Your task to perform on an android device: turn off airplane mode Image 0: 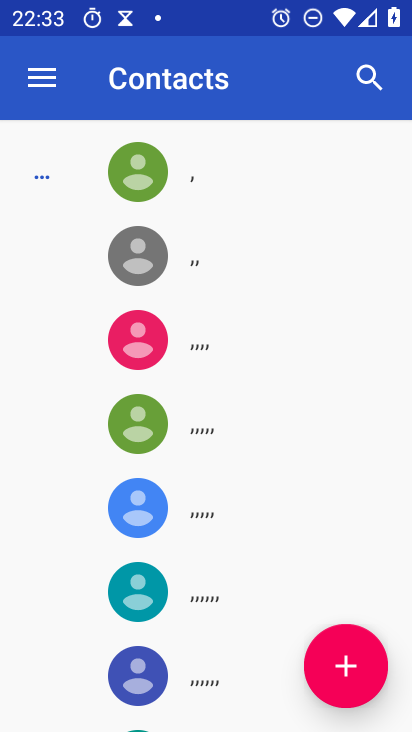
Step 0: press home button
Your task to perform on an android device: turn off airplane mode Image 1: 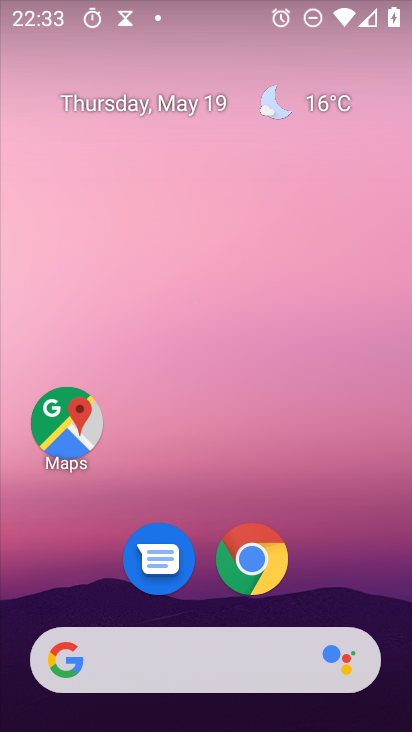
Step 1: drag from (249, 724) to (245, 162)
Your task to perform on an android device: turn off airplane mode Image 2: 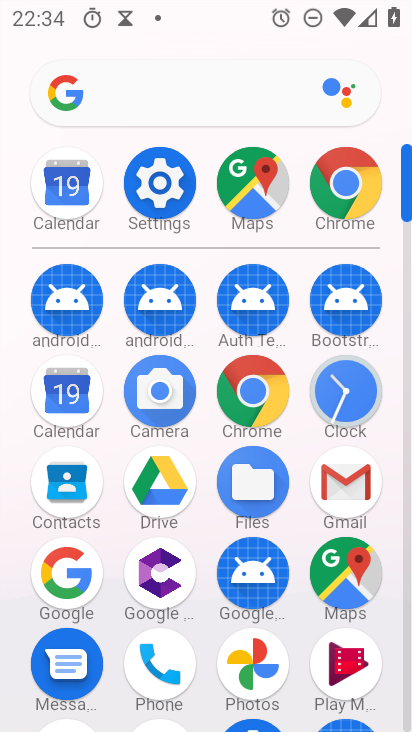
Step 2: click (147, 188)
Your task to perform on an android device: turn off airplane mode Image 3: 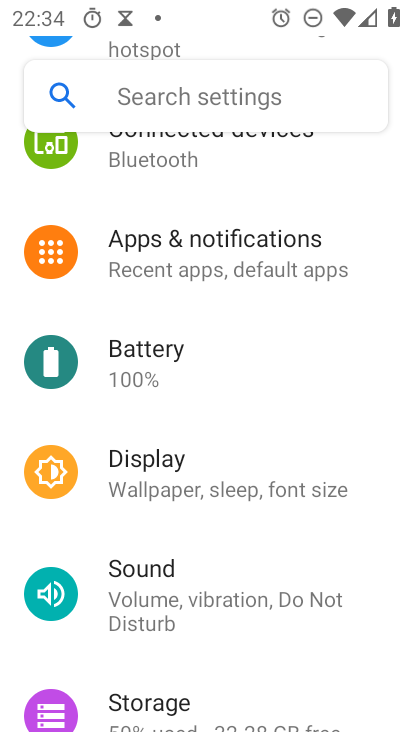
Step 3: drag from (223, 197) to (199, 520)
Your task to perform on an android device: turn off airplane mode Image 4: 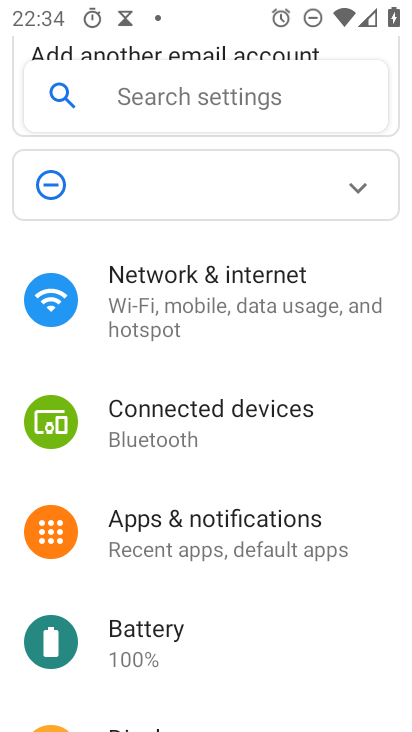
Step 4: click (161, 301)
Your task to perform on an android device: turn off airplane mode Image 5: 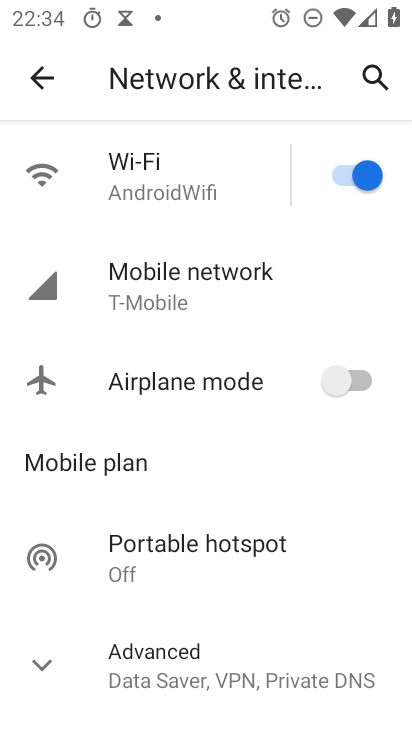
Step 5: task complete